Your task to perform on an android device: Open calendar and show me the fourth week of next month Image 0: 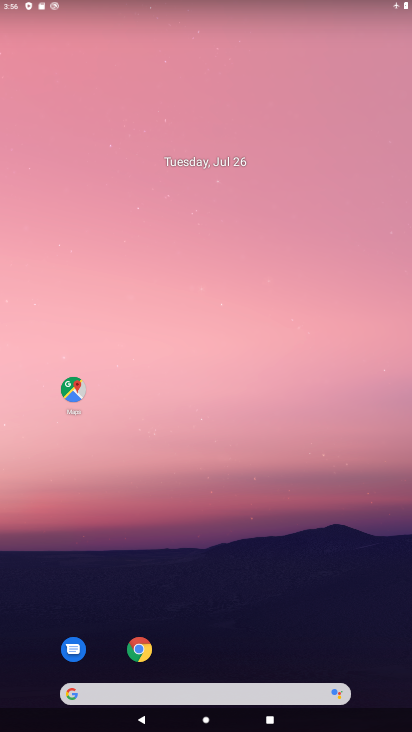
Step 0: drag from (221, 669) to (186, 277)
Your task to perform on an android device: Open calendar and show me the fourth week of next month Image 1: 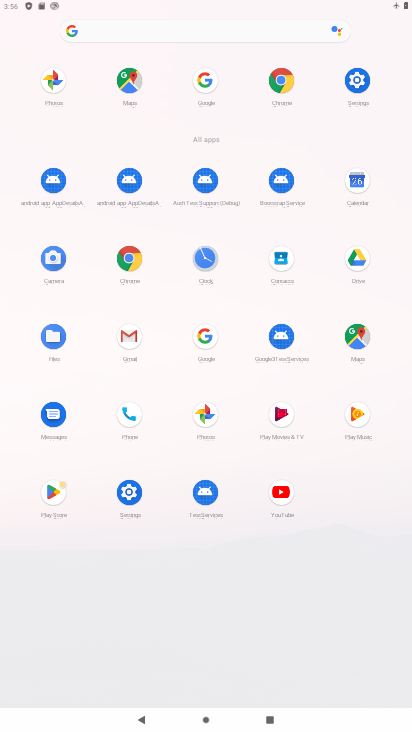
Step 1: click (361, 184)
Your task to perform on an android device: Open calendar and show me the fourth week of next month Image 2: 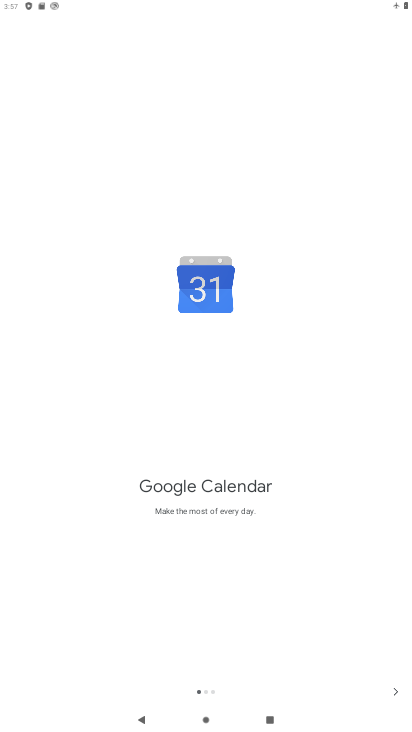
Step 2: click (390, 689)
Your task to perform on an android device: Open calendar and show me the fourth week of next month Image 3: 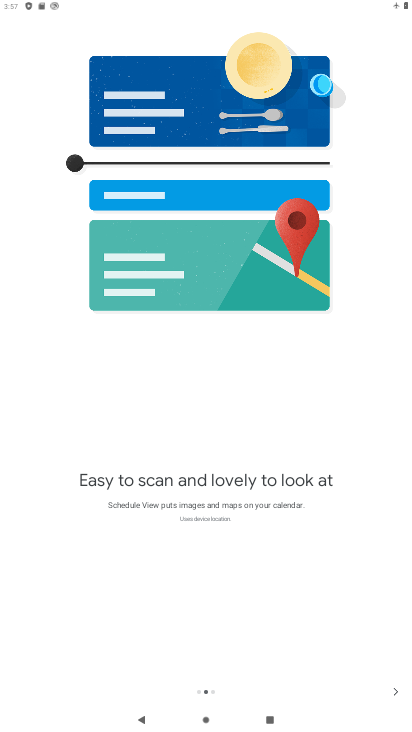
Step 3: click (391, 688)
Your task to perform on an android device: Open calendar and show me the fourth week of next month Image 4: 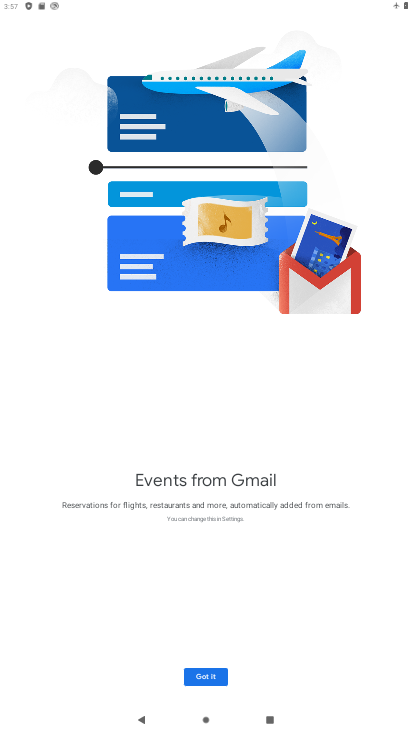
Step 4: click (194, 680)
Your task to perform on an android device: Open calendar and show me the fourth week of next month Image 5: 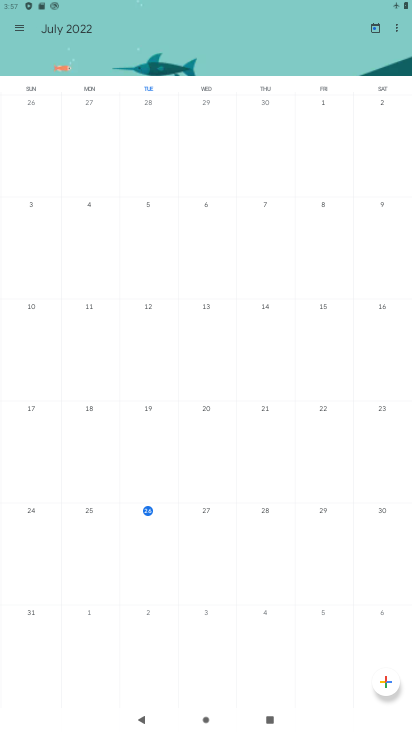
Step 5: drag from (363, 351) to (1, 291)
Your task to perform on an android device: Open calendar and show me the fourth week of next month Image 6: 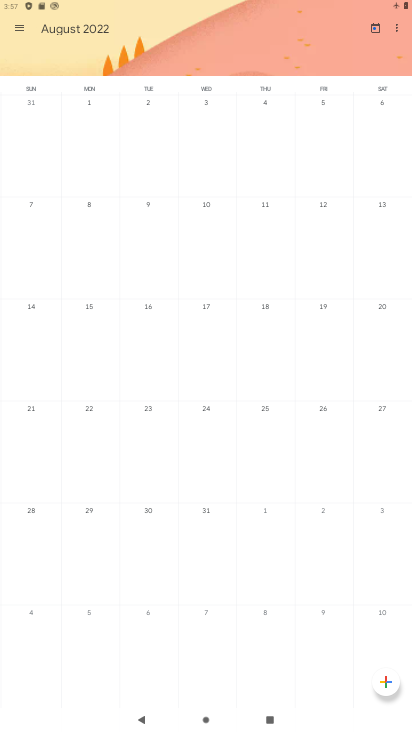
Step 6: click (30, 351)
Your task to perform on an android device: Open calendar and show me the fourth week of next month Image 7: 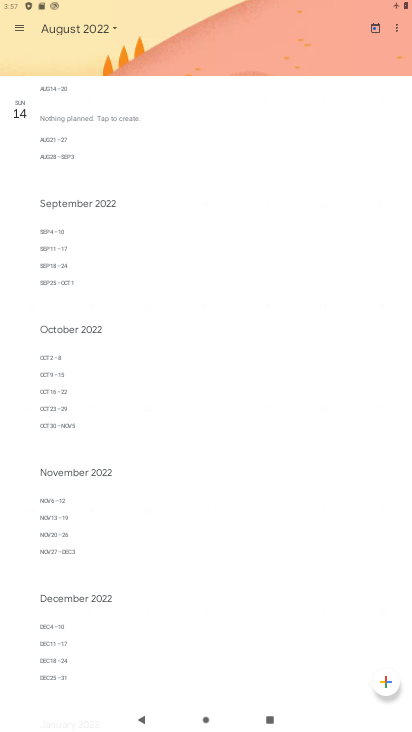
Step 7: click (47, 438)
Your task to perform on an android device: Open calendar and show me the fourth week of next month Image 8: 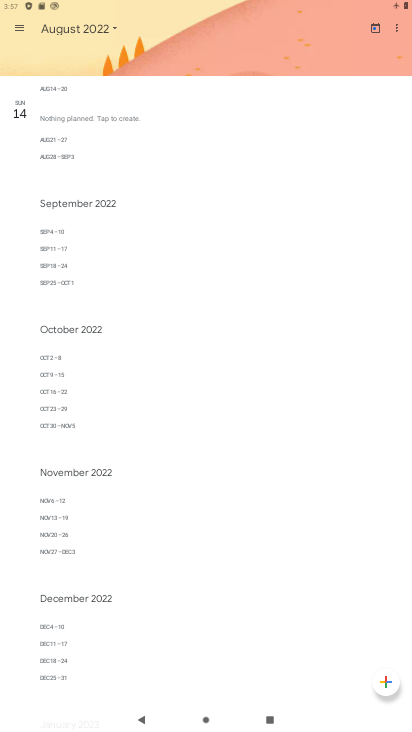
Step 8: task complete